Your task to perform on an android device: toggle notifications settings in the gmail app Image 0: 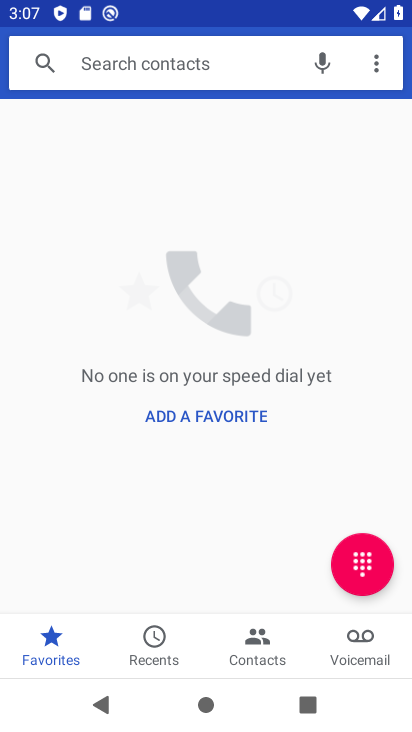
Step 0: press home button
Your task to perform on an android device: toggle notifications settings in the gmail app Image 1: 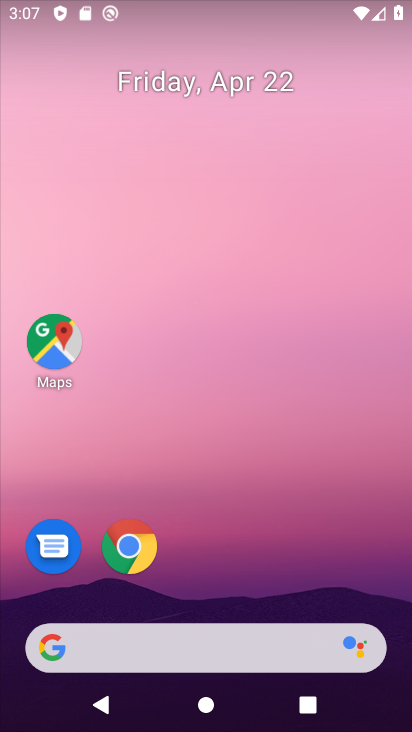
Step 1: drag from (328, 404) to (322, 103)
Your task to perform on an android device: toggle notifications settings in the gmail app Image 2: 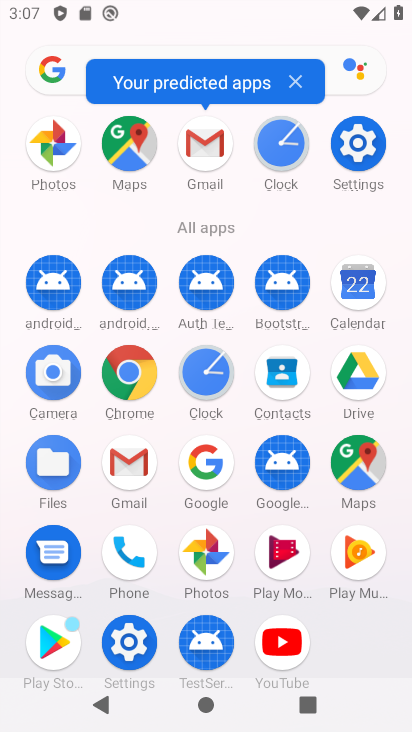
Step 2: click (130, 483)
Your task to perform on an android device: toggle notifications settings in the gmail app Image 3: 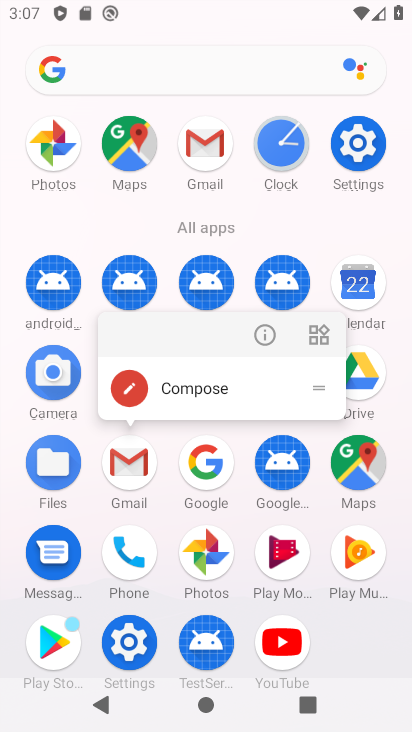
Step 3: click (127, 475)
Your task to perform on an android device: toggle notifications settings in the gmail app Image 4: 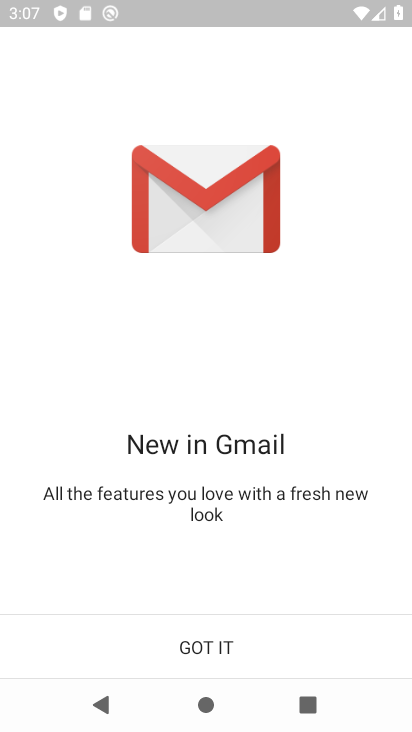
Step 4: click (208, 647)
Your task to perform on an android device: toggle notifications settings in the gmail app Image 5: 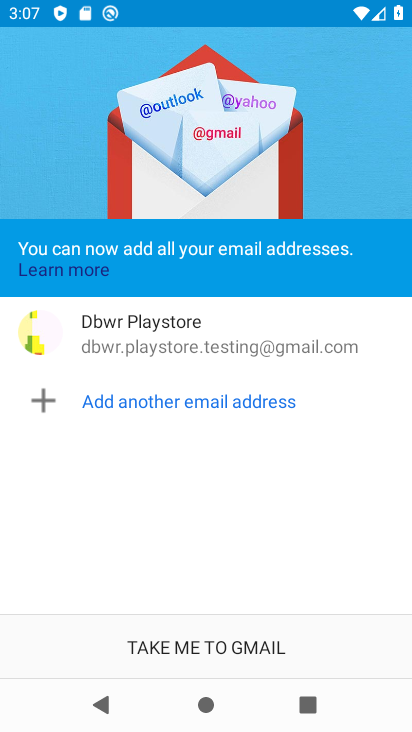
Step 5: click (265, 640)
Your task to perform on an android device: toggle notifications settings in the gmail app Image 6: 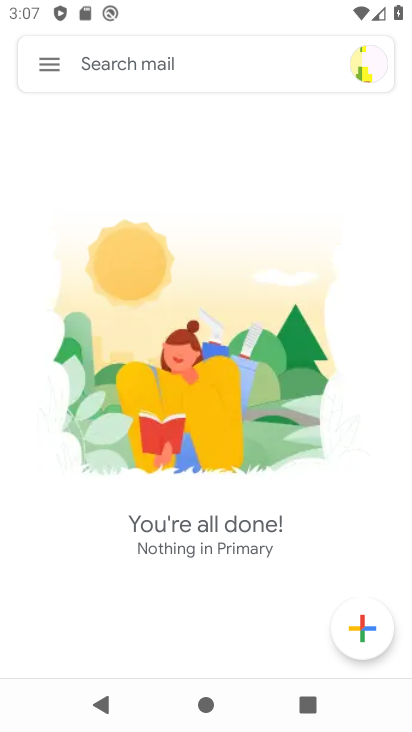
Step 6: click (51, 66)
Your task to perform on an android device: toggle notifications settings in the gmail app Image 7: 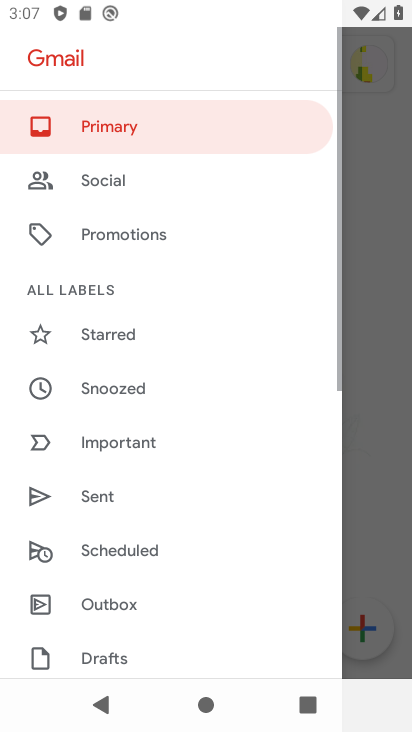
Step 7: drag from (138, 575) to (147, 142)
Your task to perform on an android device: toggle notifications settings in the gmail app Image 8: 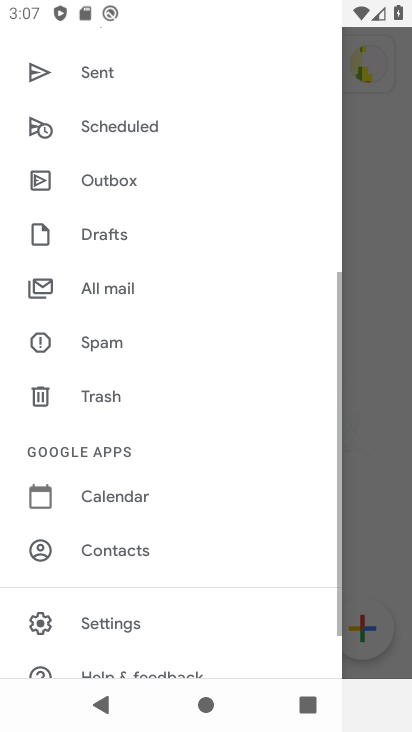
Step 8: drag from (148, 611) to (178, 311)
Your task to perform on an android device: toggle notifications settings in the gmail app Image 9: 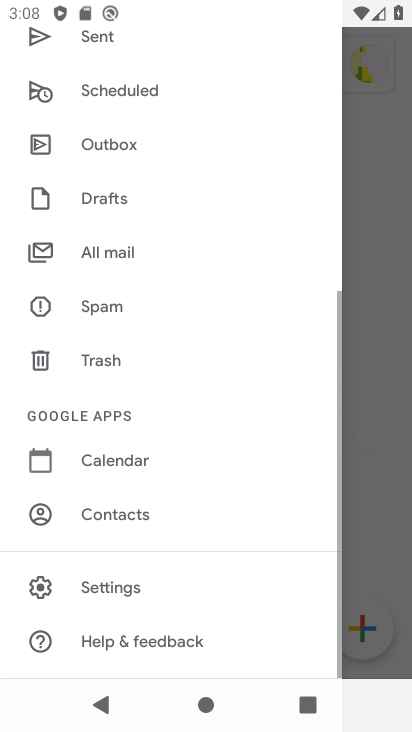
Step 9: click (122, 592)
Your task to perform on an android device: toggle notifications settings in the gmail app Image 10: 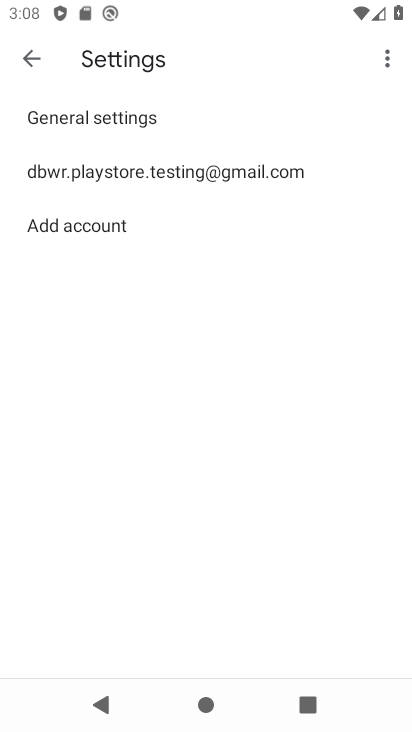
Step 10: click (134, 175)
Your task to perform on an android device: toggle notifications settings in the gmail app Image 11: 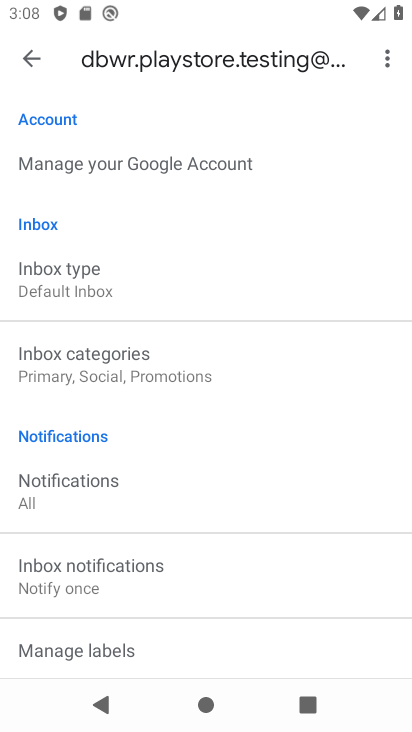
Step 11: click (95, 497)
Your task to perform on an android device: toggle notifications settings in the gmail app Image 12: 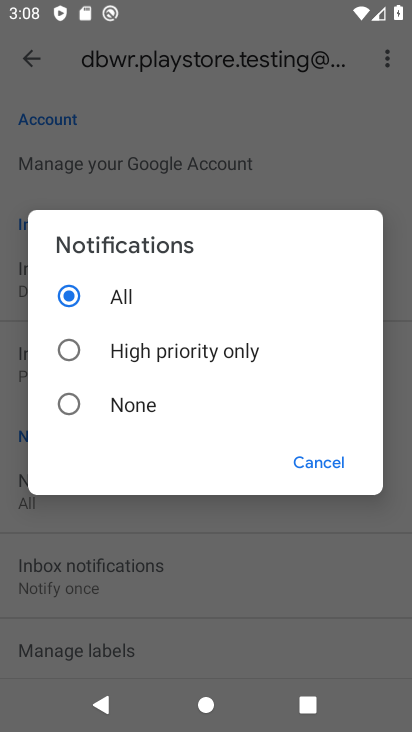
Step 12: click (162, 362)
Your task to perform on an android device: toggle notifications settings in the gmail app Image 13: 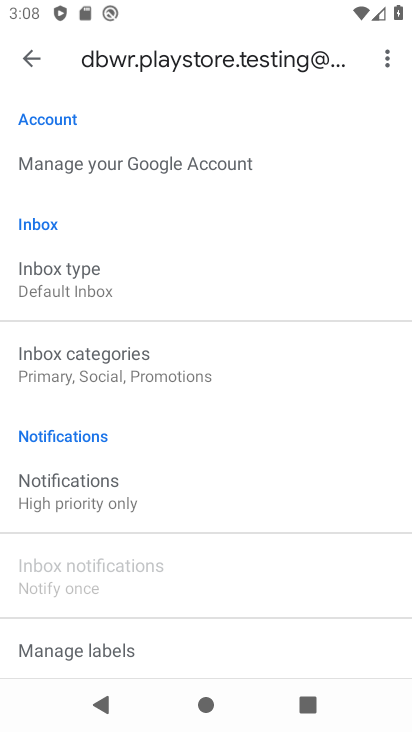
Step 13: drag from (155, 525) to (168, 365)
Your task to perform on an android device: toggle notifications settings in the gmail app Image 14: 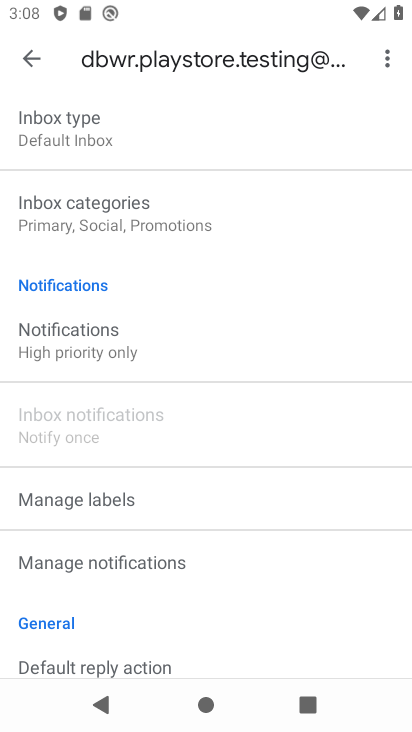
Step 14: click (133, 359)
Your task to perform on an android device: toggle notifications settings in the gmail app Image 15: 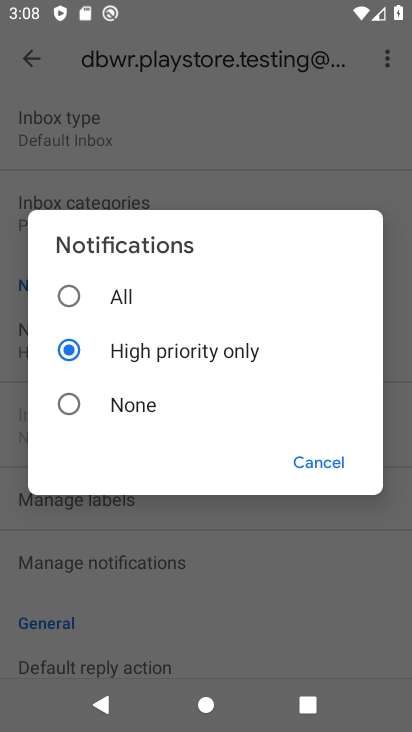
Step 15: task complete